Your task to perform on an android device: Open accessibility settings Image 0: 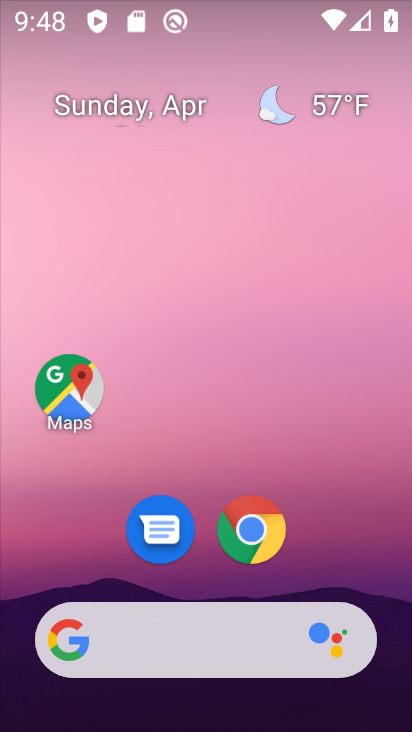
Step 0: drag from (328, 573) to (210, 97)
Your task to perform on an android device: Open accessibility settings Image 1: 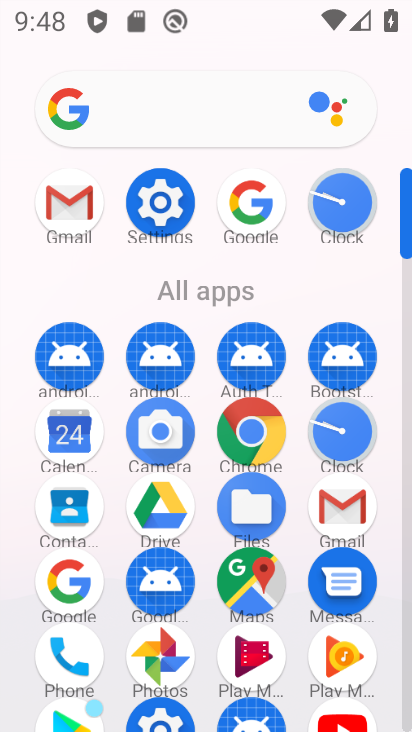
Step 1: click (159, 202)
Your task to perform on an android device: Open accessibility settings Image 2: 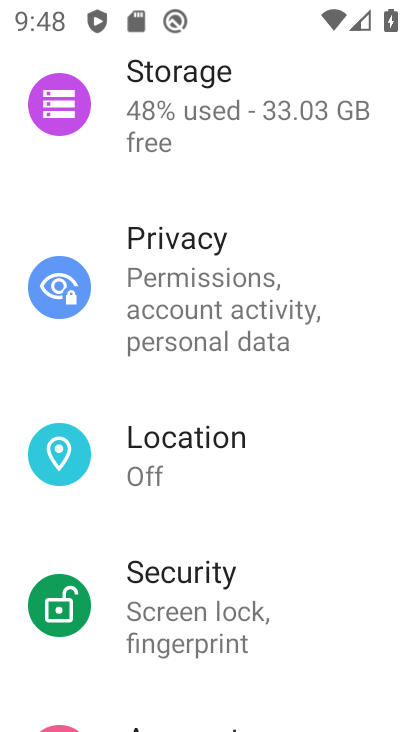
Step 2: drag from (307, 536) to (263, 51)
Your task to perform on an android device: Open accessibility settings Image 3: 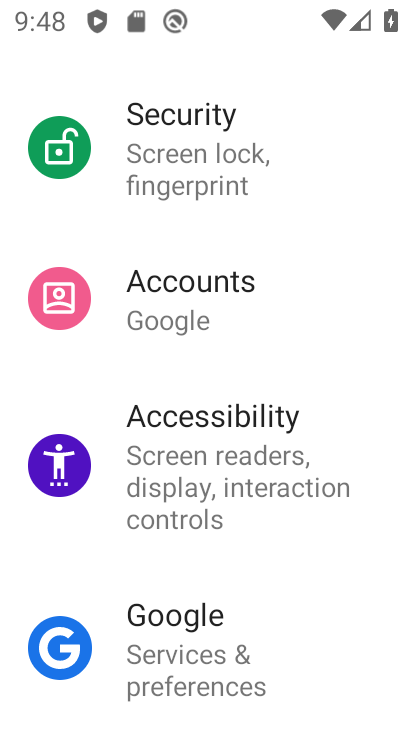
Step 3: click (181, 446)
Your task to perform on an android device: Open accessibility settings Image 4: 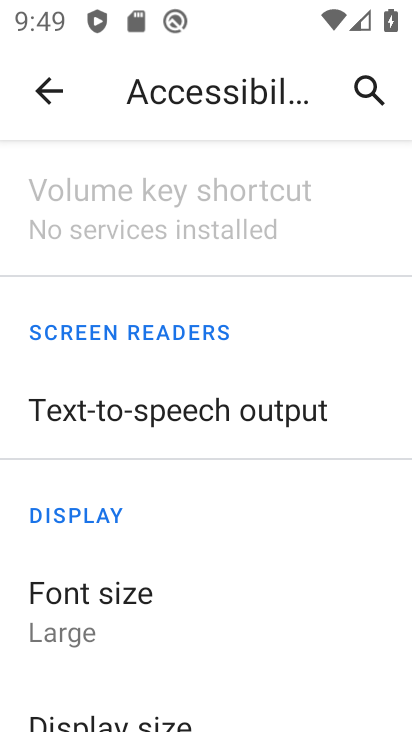
Step 4: task complete